Your task to perform on an android device: move an email to a new category in the gmail app Image 0: 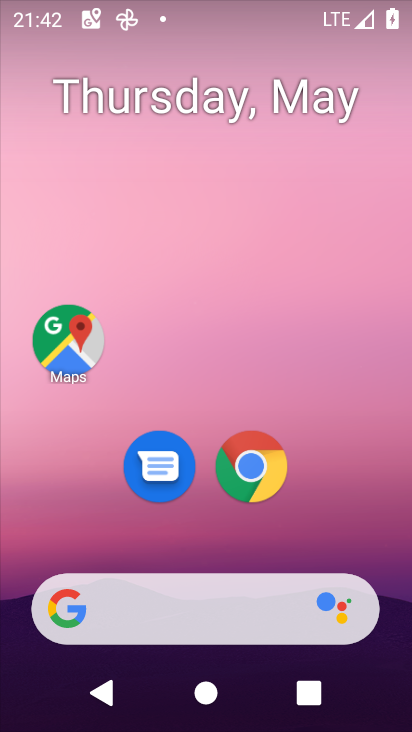
Step 0: drag from (379, 530) to (345, 122)
Your task to perform on an android device: move an email to a new category in the gmail app Image 1: 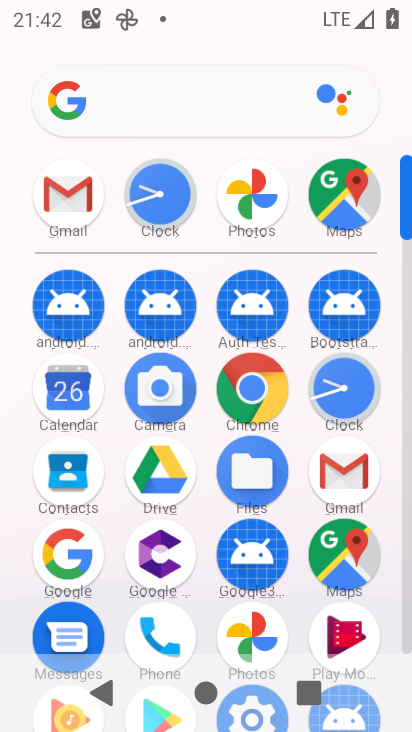
Step 1: click (58, 181)
Your task to perform on an android device: move an email to a new category in the gmail app Image 2: 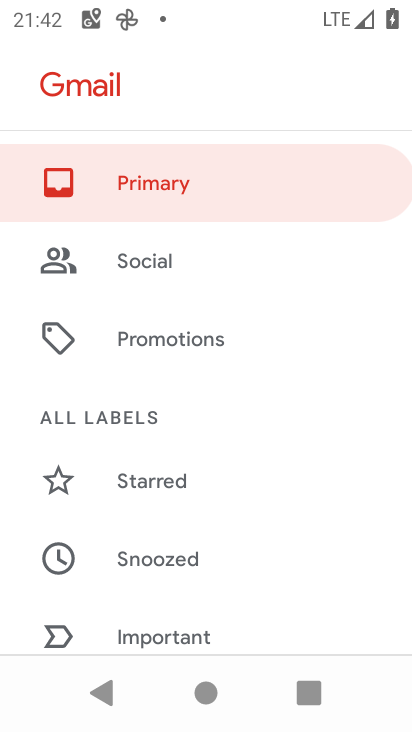
Step 2: task complete